Your task to perform on an android device: set the stopwatch Image 0: 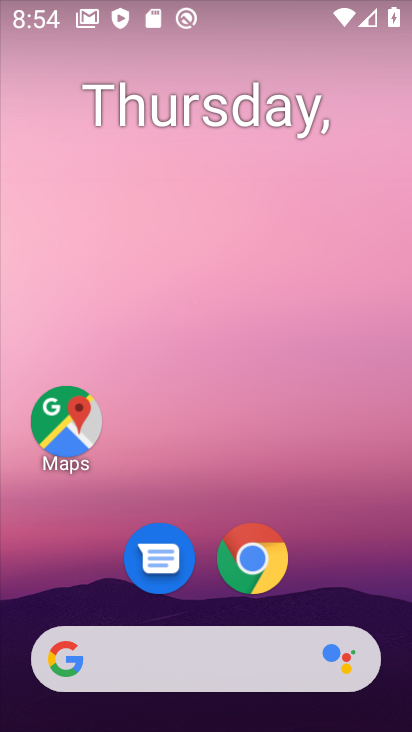
Step 0: drag from (370, 610) to (333, 90)
Your task to perform on an android device: set the stopwatch Image 1: 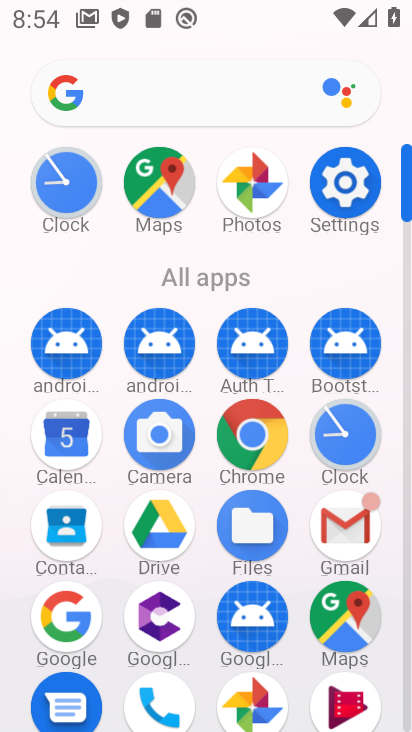
Step 1: click (407, 697)
Your task to perform on an android device: set the stopwatch Image 2: 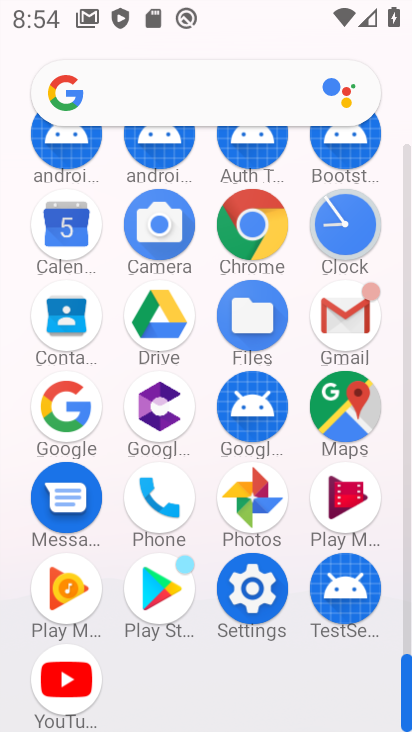
Step 2: click (348, 221)
Your task to perform on an android device: set the stopwatch Image 3: 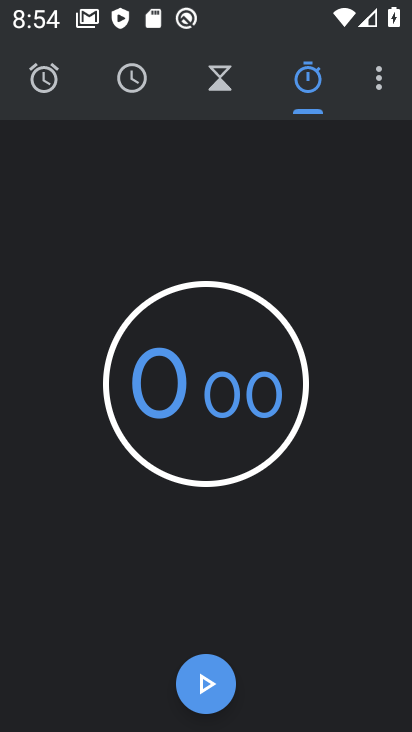
Step 3: task complete